Your task to perform on an android device: Open Yahoo.com Image 0: 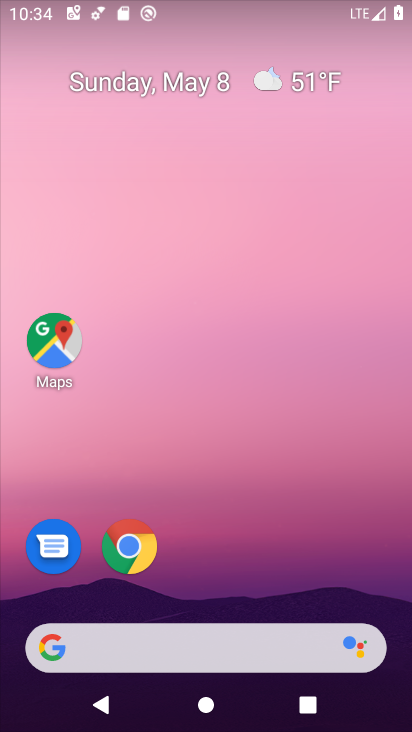
Step 0: click (125, 547)
Your task to perform on an android device: Open Yahoo.com Image 1: 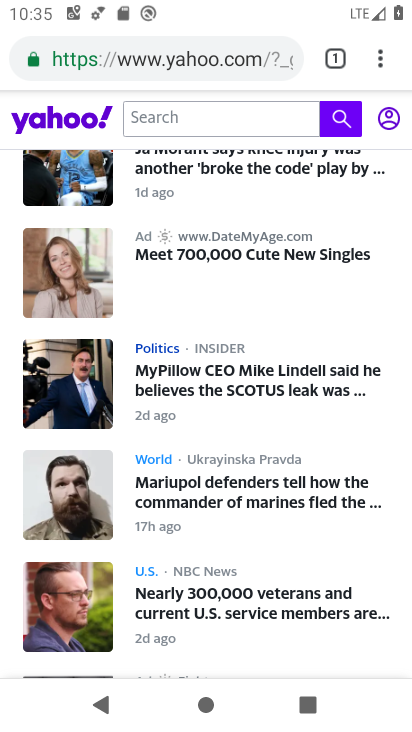
Step 1: task complete